Your task to perform on an android device: check the backup settings in the google photos Image 0: 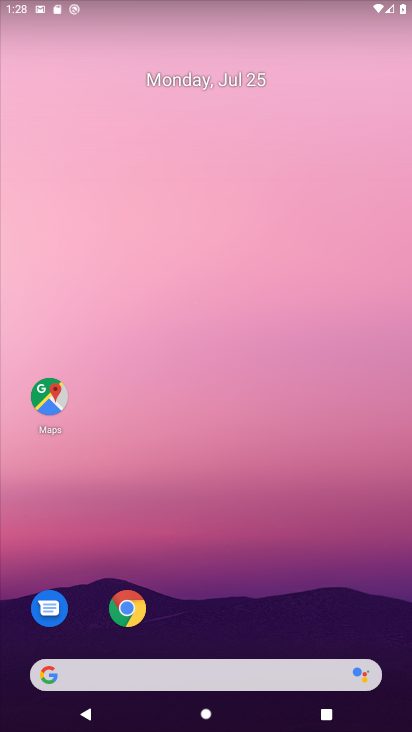
Step 0: drag from (385, 631) to (340, 119)
Your task to perform on an android device: check the backup settings in the google photos Image 1: 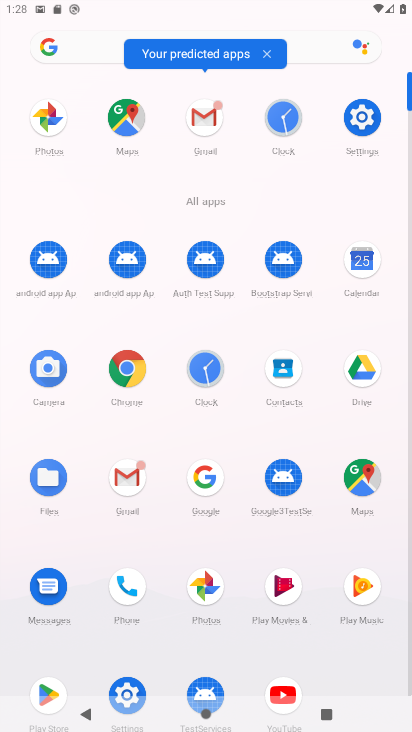
Step 1: click (205, 587)
Your task to perform on an android device: check the backup settings in the google photos Image 2: 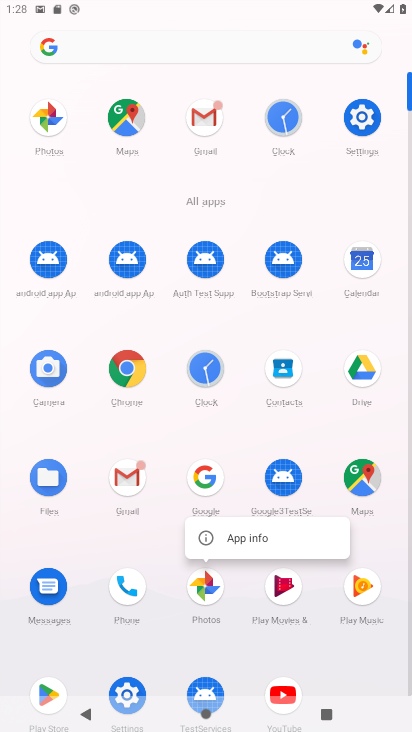
Step 2: click (205, 588)
Your task to perform on an android device: check the backup settings in the google photos Image 3: 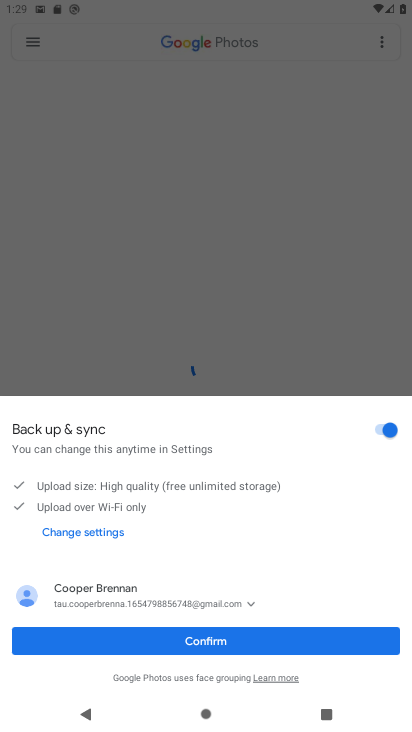
Step 3: click (199, 642)
Your task to perform on an android device: check the backup settings in the google photos Image 4: 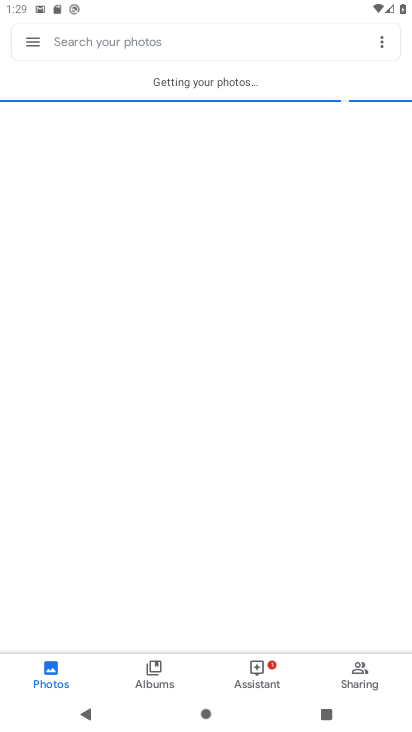
Step 4: click (30, 45)
Your task to perform on an android device: check the backup settings in the google photos Image 5: 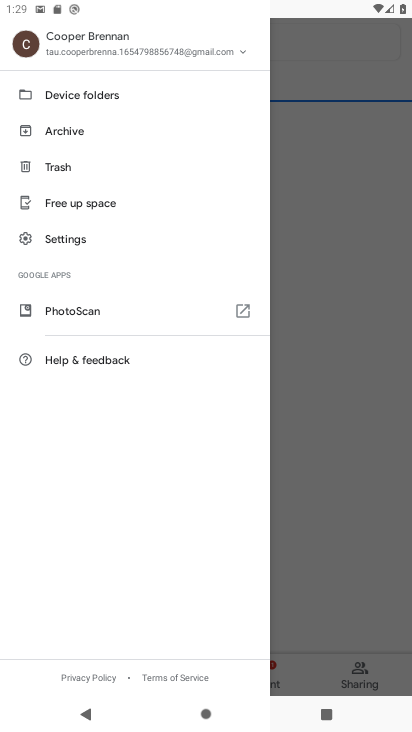
Step 5: click (70, 236)
Your task to perform on an android device: check the backup settings in the google photos Image 6: 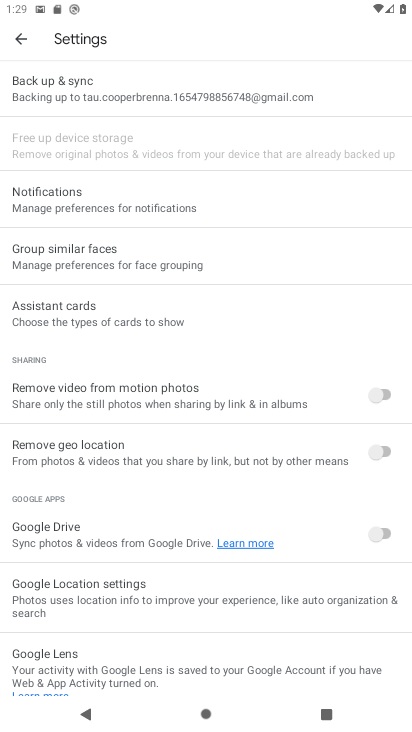
Step 6: click (67, 88)
Your task to perform on an android device: check the backup settings in the google photos Image 7: 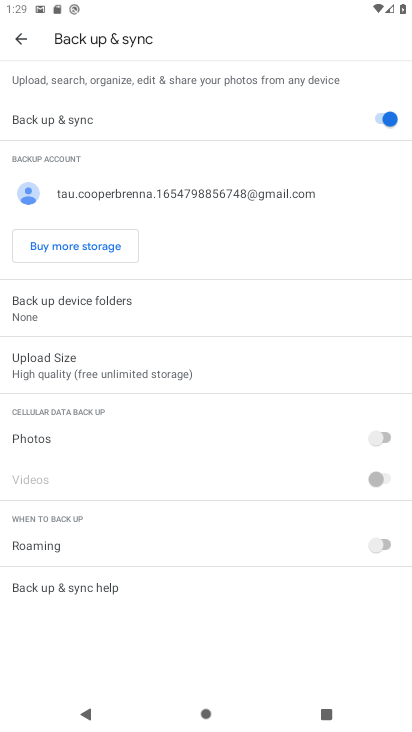
Step 7: task complete